Your task to perform on an android device: open a new tab in the chrome app Image 0: 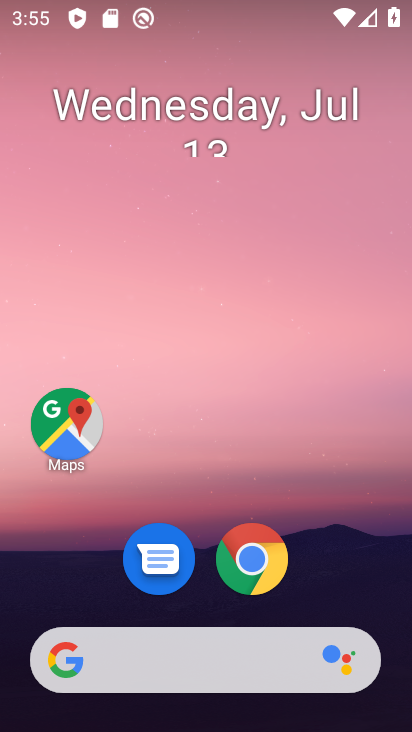
Step 0: drag from (205, 660) to (287, 228)
Your task to perform on an android device: open a new tab in the chrome app Image 1: 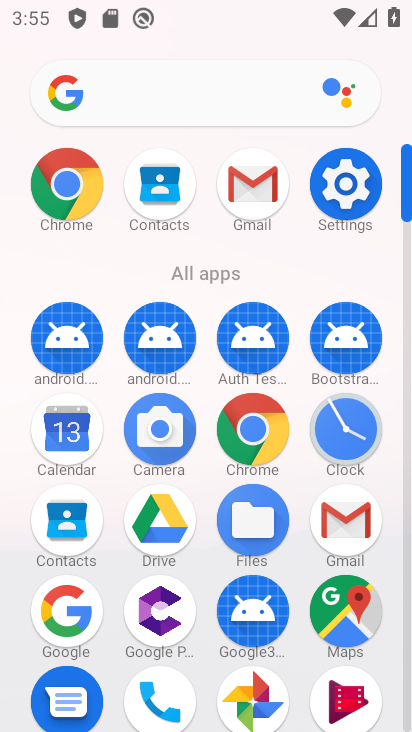
Step 1: click (275, 457)
Your task to perform on an android device: open a new tab in the chrome app Image 2: 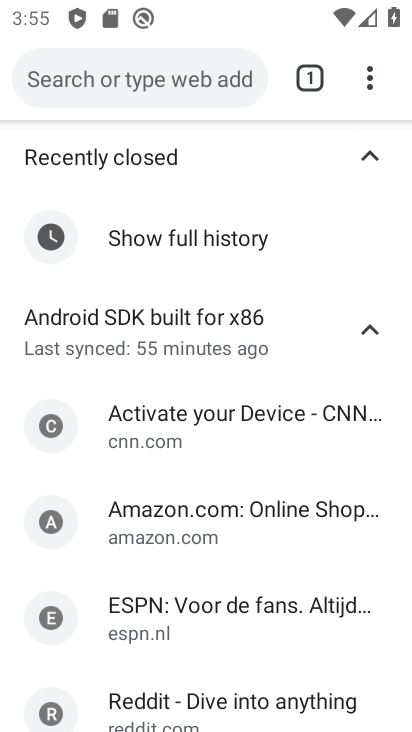
Step 2: drag from (319, 83) to (300, 343)
Your task to perform on an android device: open a new tab in the chrome app Image 3: 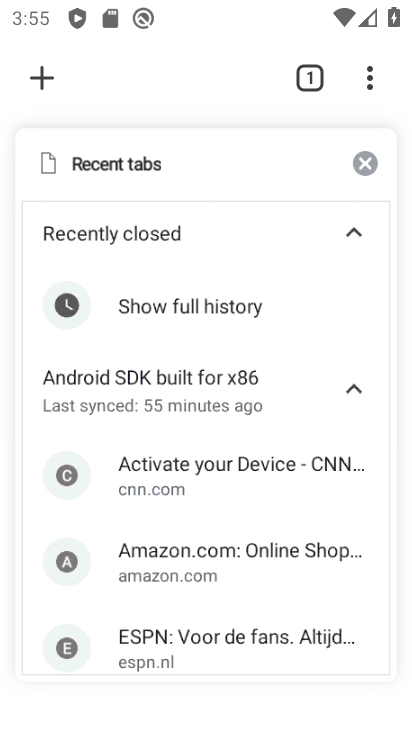
Step 3: click (49, 72)
Your task to perform on an android device: open a new tab in the chrome app Image 4: 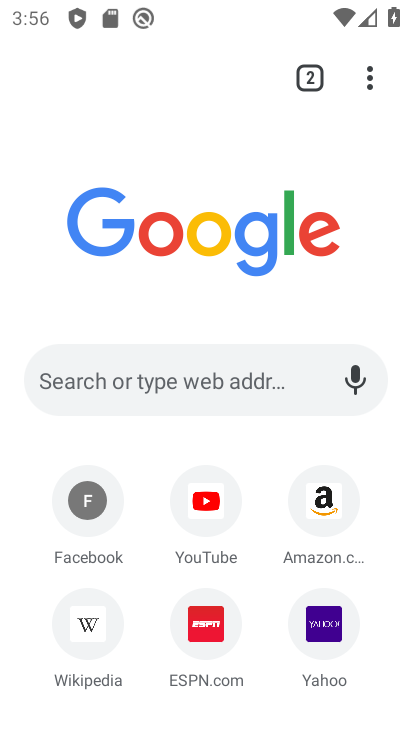
Step 4: task complete